Your task to perform on an android device: turn vacation reply on in the gmail app Image 0: 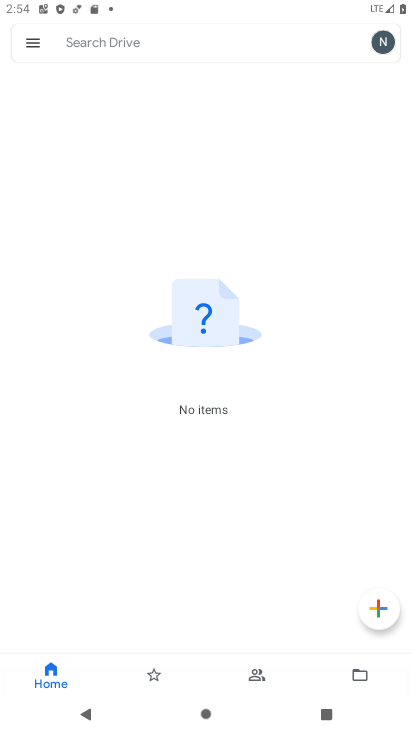
Step 0: press home button
Your task to perform on an android device: turn vacation reply on in the gmail app Image 1: 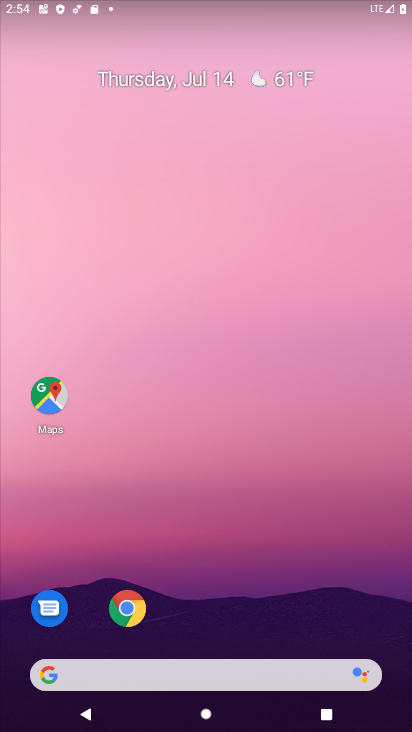
Step 1: drag from (187, 610) to (187, 287)
Your task to perform on an android device: turn vacation reply on in the gmail app Image 2: 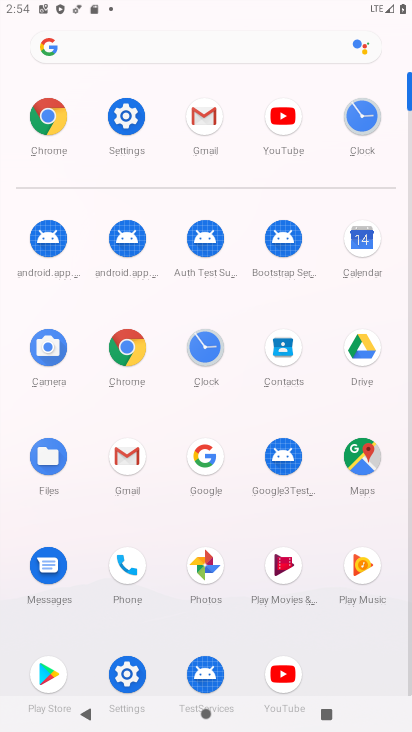
Step 2: click (127, 460)
Your task to perform on an android device: turn vacation reply on in the gmail app Image 3: 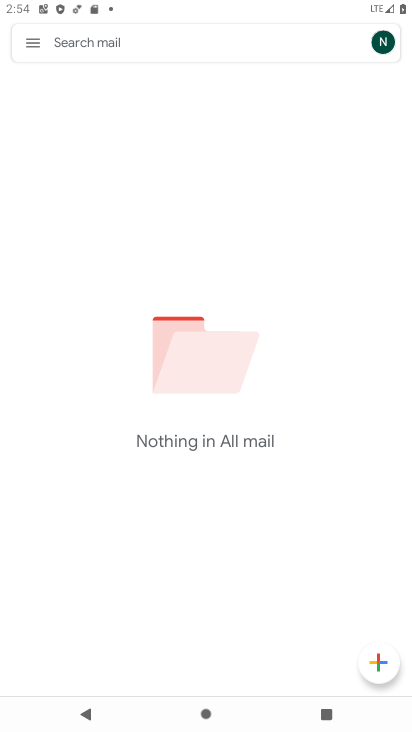
Step 3: click (27, 43)
Your task to perform on an android device: turn vacation reply on in the gmail app Image 4: 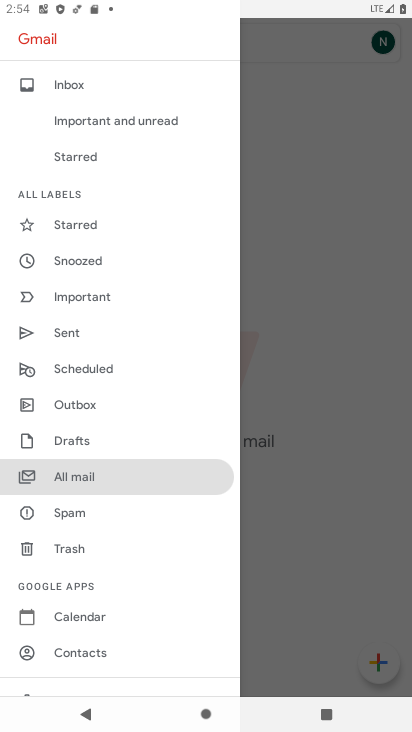
Step 4: drag from (79, 649) to (66, 292)
Your task to perform on an android device: turn vacation reply on in the gmail app Image 5: 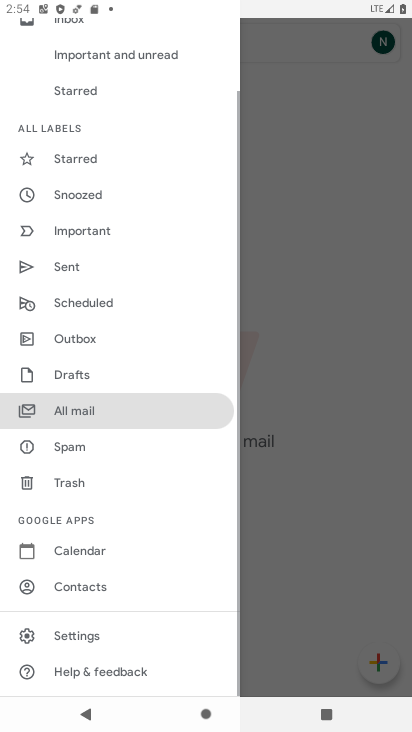
Step 5: click (73, 644)
Your task to perform on an android device: turn vacation reply on in the gmail app Image 6: 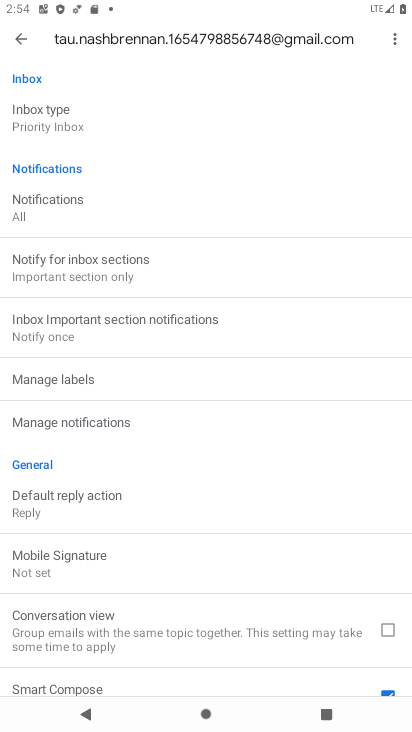
Step 6: drag from (56, 659) to (59, 262)
Your task to perform on an android device: turn vacation reply on in the gmail app Image 7: 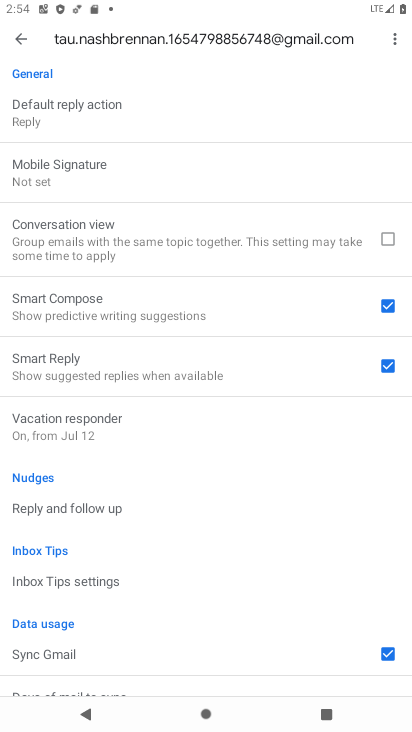
Step 7: click (60, 429)
Your task to perform on an android device: turn vacation reply on in the gmail app Image 8: 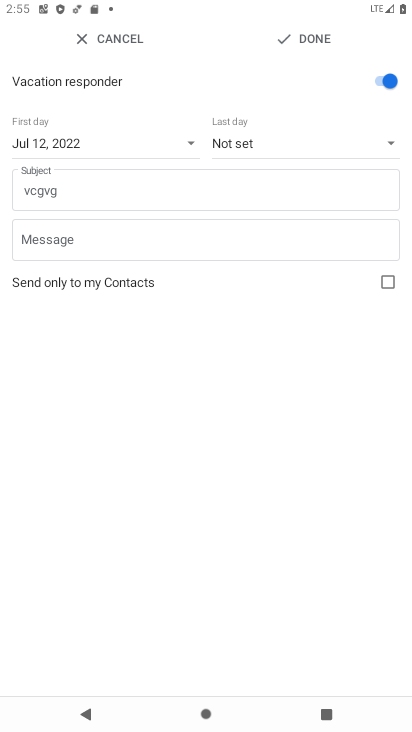
Step 8: task complete